Your task to perform on an android device: Go to privacy settings Image 0: 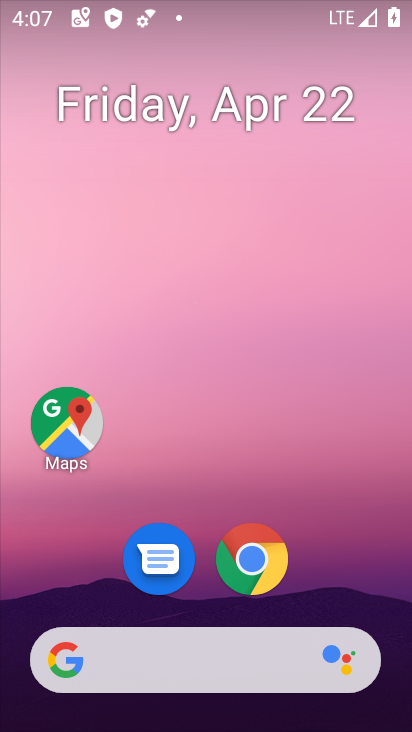
Step 0: drag from (334, 533) to (289, 37)
Your task to perform on an android device: Go to privacy settings Image 1: 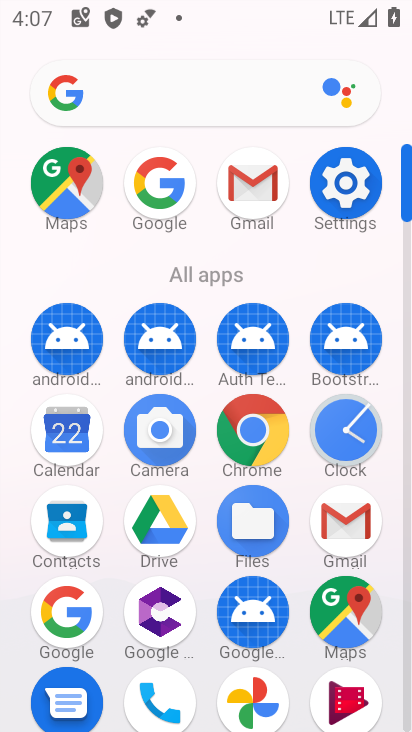
Step 1: click (337, 175)
Your task to perform on an android device: Go to privacy settings Image 2: 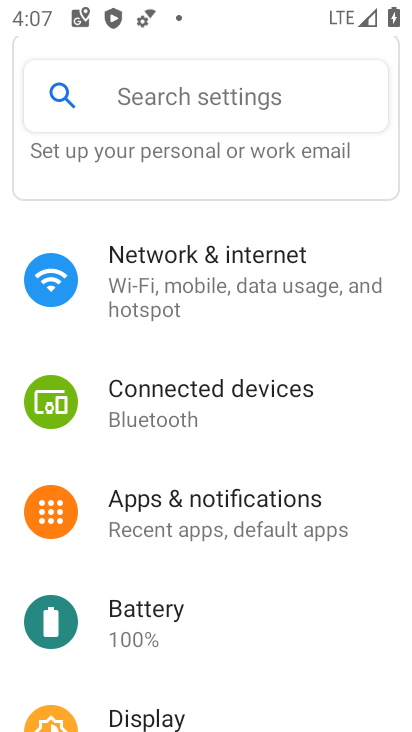
Step 2: drag from (233, 621) to (198, 195)
Your task to perform on an android device: Go to privacy settings Image 3: 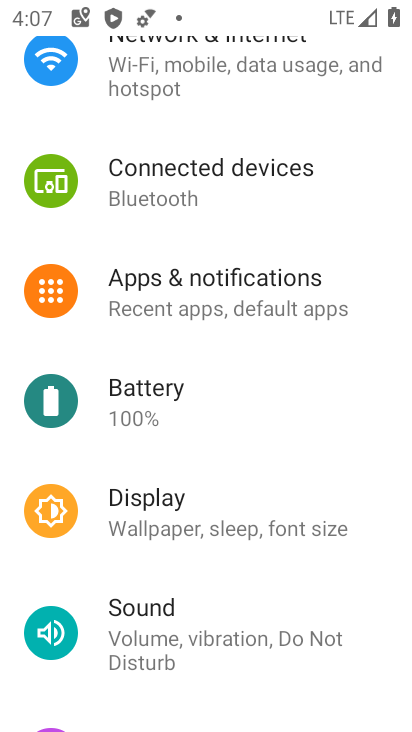
Step 3: drag from (196, 562) to (188, 99)
Your task to perform on an android device: Go to privacy settings Image 4: 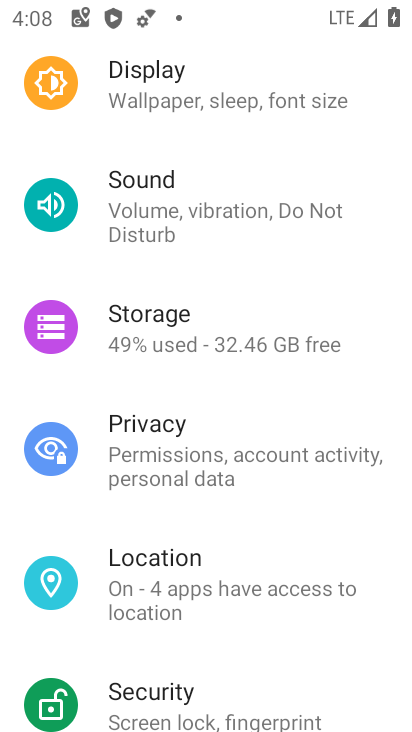
Step 4: click (170, 407)
Your task to perform on an android device: Go to privacy settings Image 5: 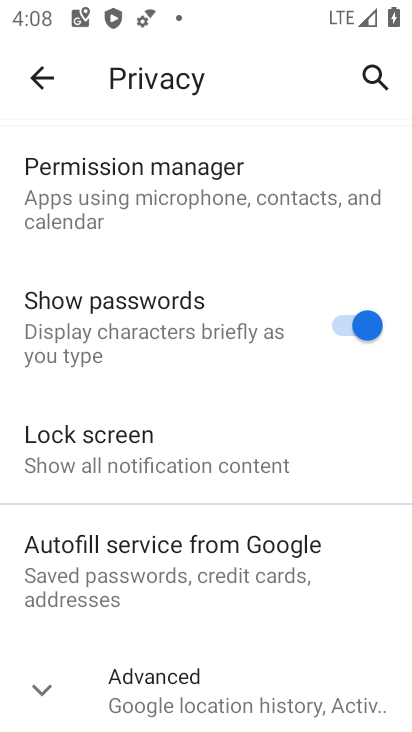
Step 5: task complete